Your task to perform on an android device: open chrome and create a bookmark for the current page Image 0: 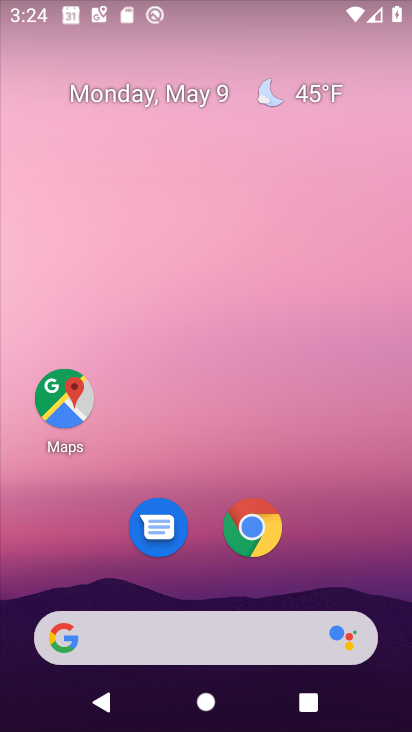
Step 0: drag from (300, 575) to (284, 323)
Your task to perform on an android device: open chrome and create a bookmark for the current page Image 1: 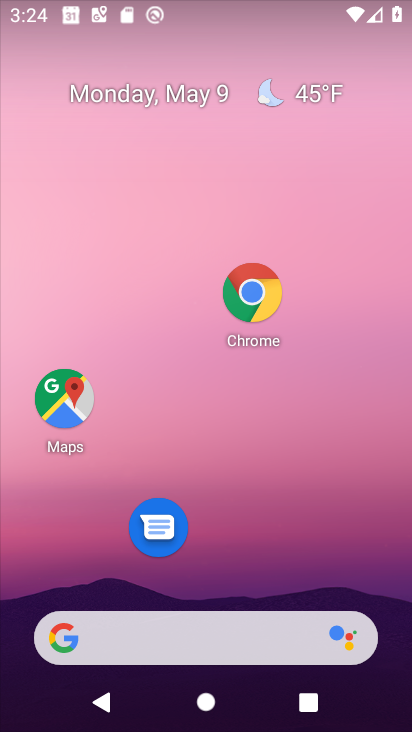
Step 1: click (341, 507)
Your task to perform on an android device: open chrome and create a bookmark for the current page Image 2: 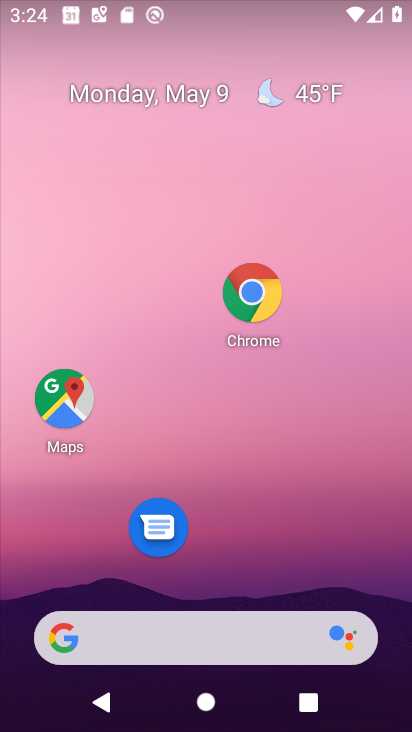
Step 2: click (302, 354)
Your task to perform on an android device: open chrome and create a bookmark for the current page Image 3: 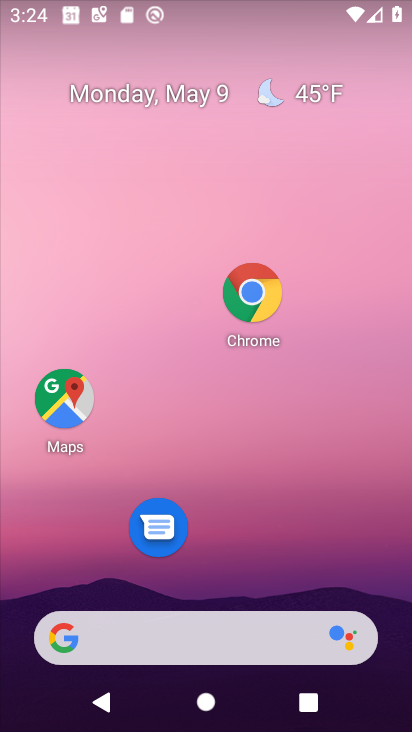
Step 3: click (302, 354)
Your task to perform on an android device: open chrome and create a bookmark for the current page Image 4: 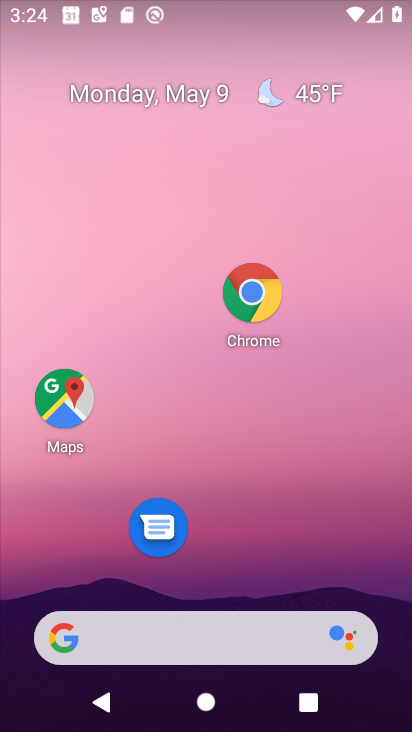
Step 4: click (302, 354)
Your task to perform on an android device: open chrome and create a bookmark for the current page Image 5: 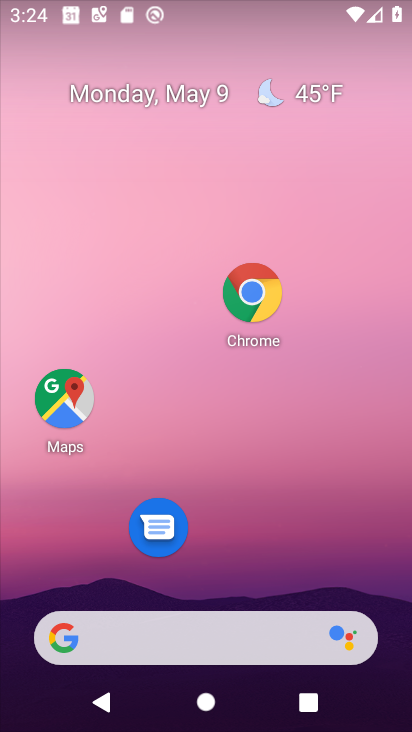
Step 5: click (302, 354)
Your task to perform on an android device: open chrome and create a bookmark for the current page Image 6: 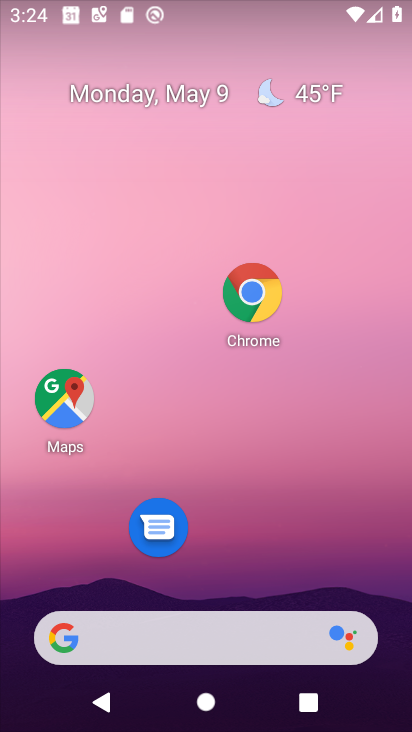
Step 6: click (302, 354)
Your task to perform on an android device: open chrome and create a bookmark for the current page Image 7: 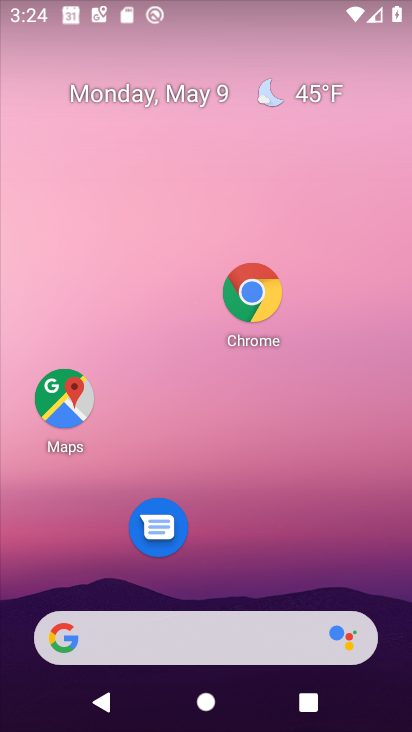
Step 7: click (237, 282)
Your task to perform on an android device: open chrome and create a bookmark for the current page Image 8: 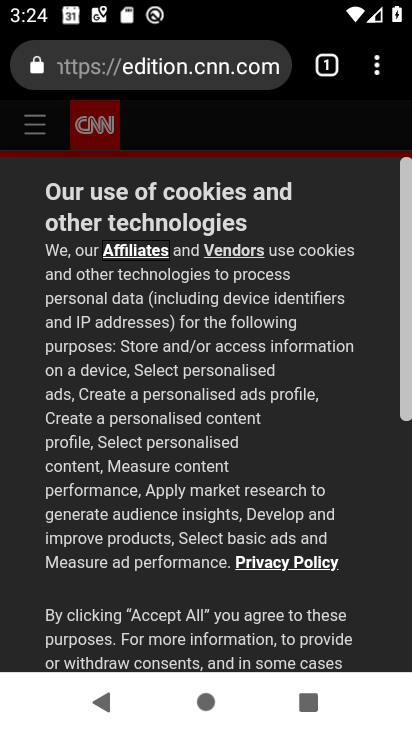
Step 8: drag from (326, 79) to (290, 218)
Your task to perform on an android device: open chrome and create a bookmark for the current page Image 9: 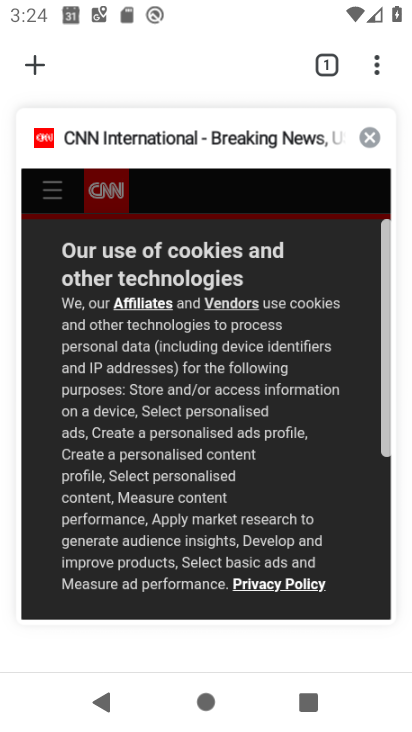
Step 9: click (35, 70)
Your task to perform on an android device: open chrome and create a bookmark for the current page Image 10: 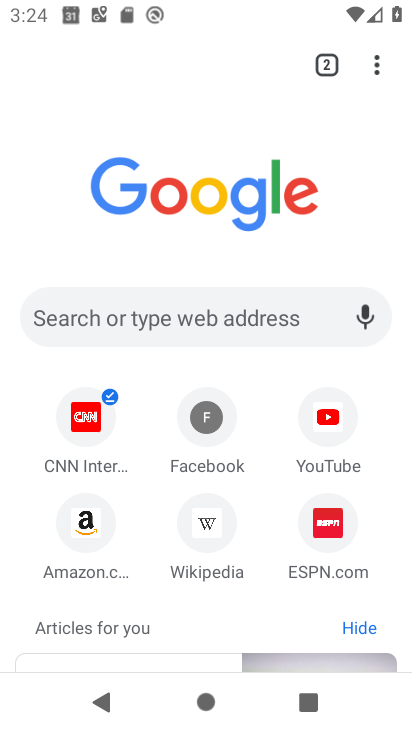
Step 10: click (232, 342)
Your task to perform on an android device: open chrome and create a bookmark for the current page Image 11: 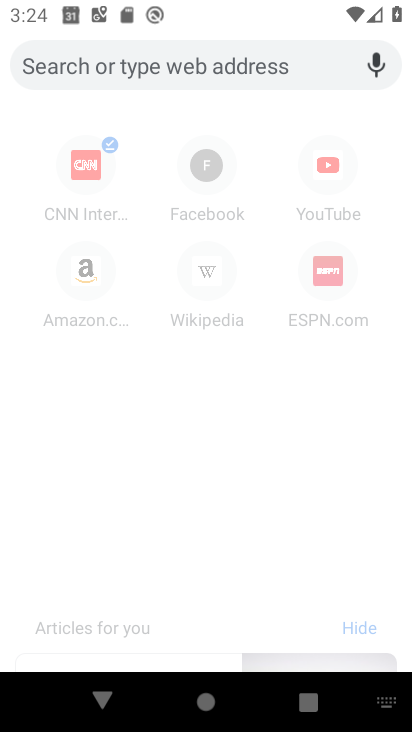
Step 11: type "ujjwal"
Your task to perform on an android device: open chrome and create a bookmark for the current page Image 12: 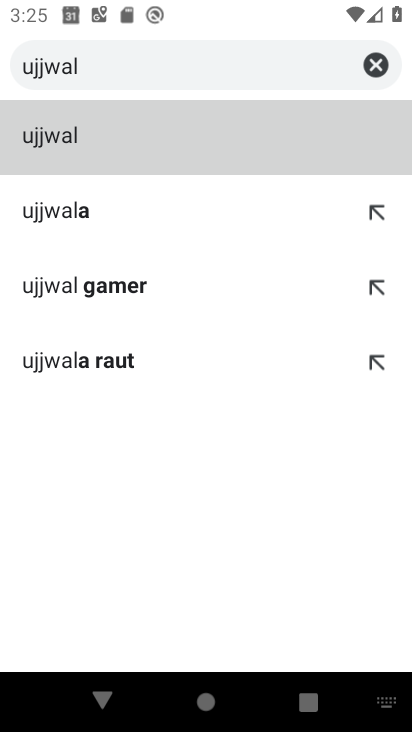
Step 12: click (121, 223)
Your task to perform on an android device: open chrome and create a bookmark for the current page Image 13: 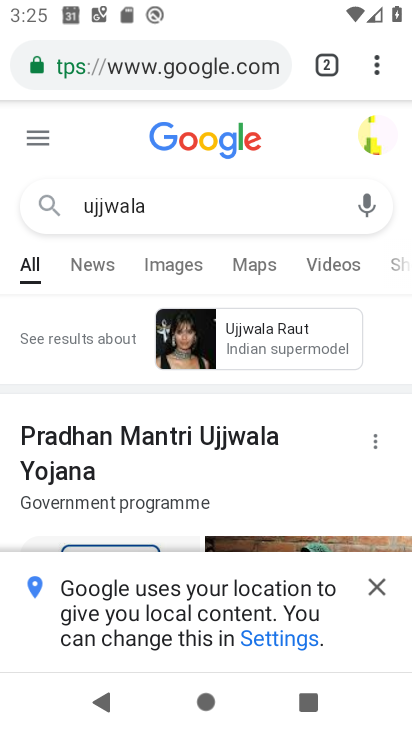
Step 13: drag from (206, 449) to (152, 24)
Your task to perform on an android device: open chrome and create a bookmark for the current page Image 14: 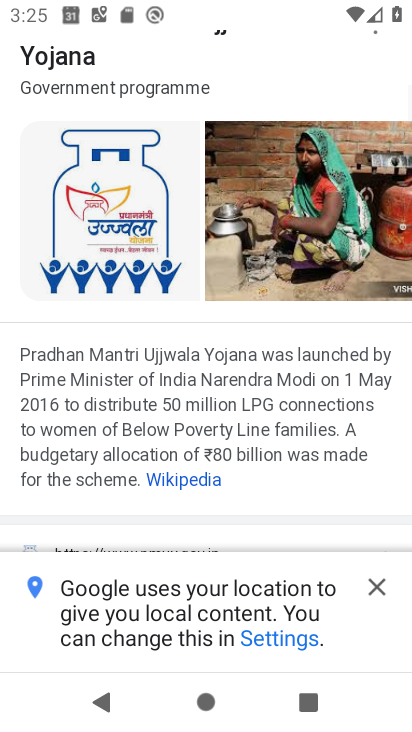
Step 14: drag from (252, 455) to (197, 198)
Your task to perform on an android device: open chrome and create a bookmark for the current page Image 15: 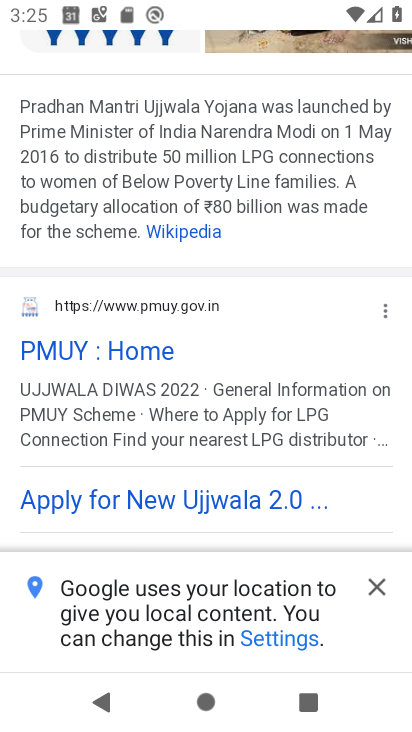
Step 15: click (141, 356)
Your task to perform on an android device: open chrome and create a bookmark for the current page Image 16: 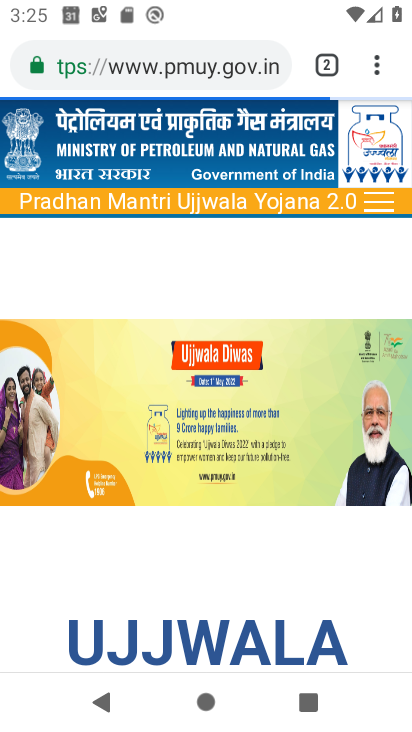
Step 16: click (380, 75)
Your task to perform on an android device: open chrome and create a bookmark for the current page Image 17: 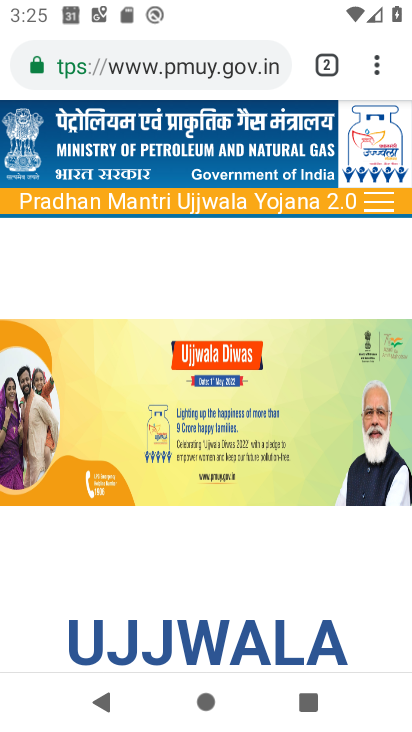
Step 17: click (380, 63)
Your task to perform on an android device: open chrome and create a bookmark for the current page Image 18: 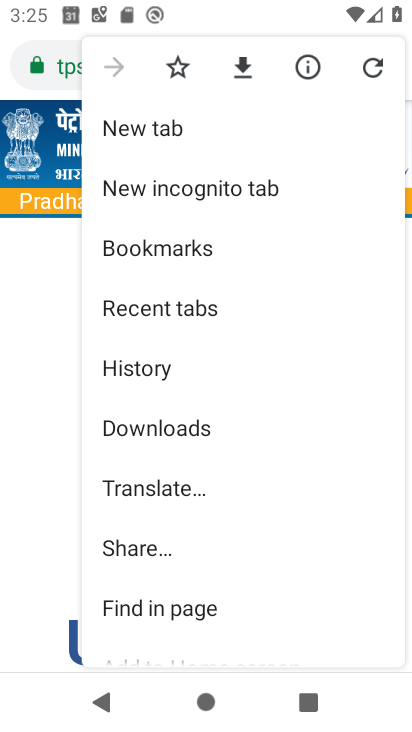
Step 18: click (188, 69)
Your task to perform on an android device: open chrome and create a bookmark for the current page Image 19: 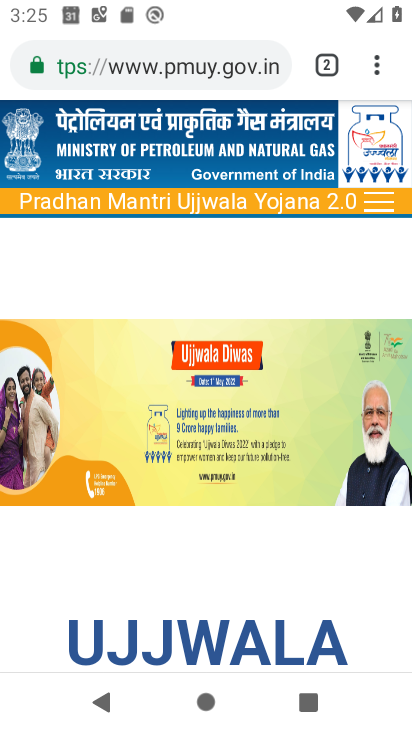
Step 19: task complete